Your task to perform on an android device: What's on my calendar today? Image 0: 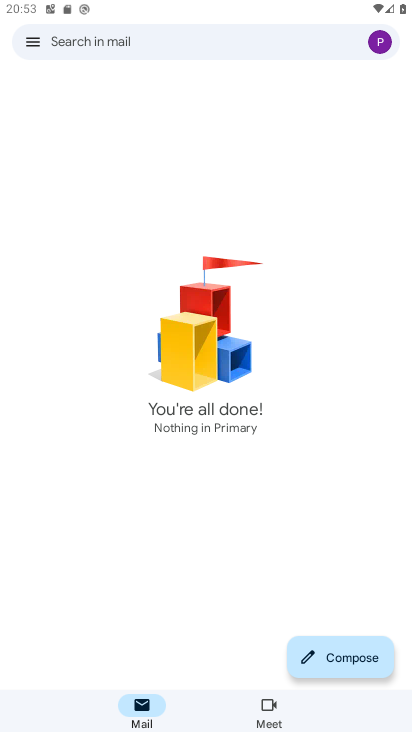
Step 0: click (38, 39)
Your task to perform on an android device: What's on my calendar today? Image 1: 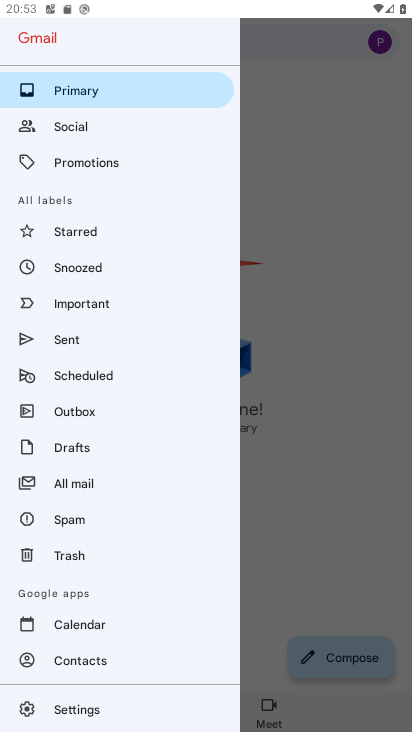
Step 1: drag from (37, 650) to (71, 297)
Your task to perform on an android device: What's on my calendar today? Image 2: 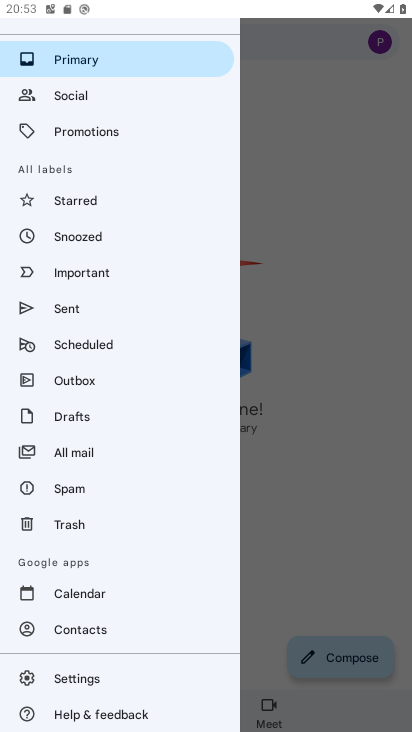
Step 2: click (57, 670)
Your task to perform on an android device: What's on my calendar today? Image 3: 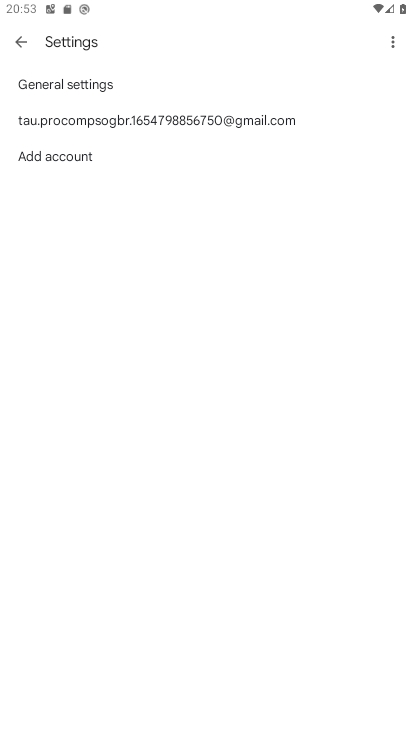
Step 3: press home button
Your task to perform on an android device: What's on my calendar today? Image 4: 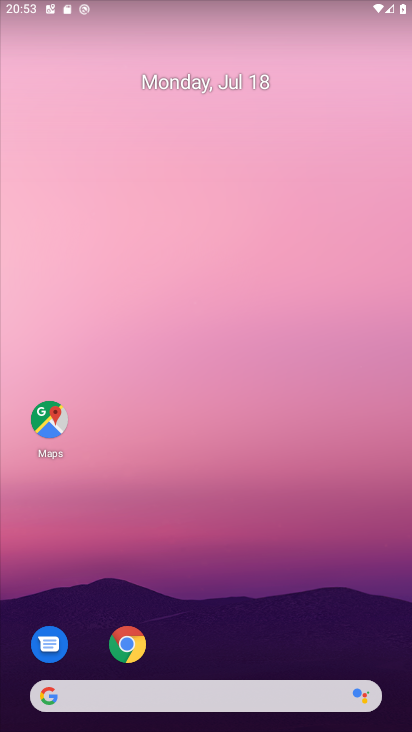
Step 4: drag from (213, 632) to (198, 14)
Your task to perform on an android device: What's on my calendar today? Image 5: 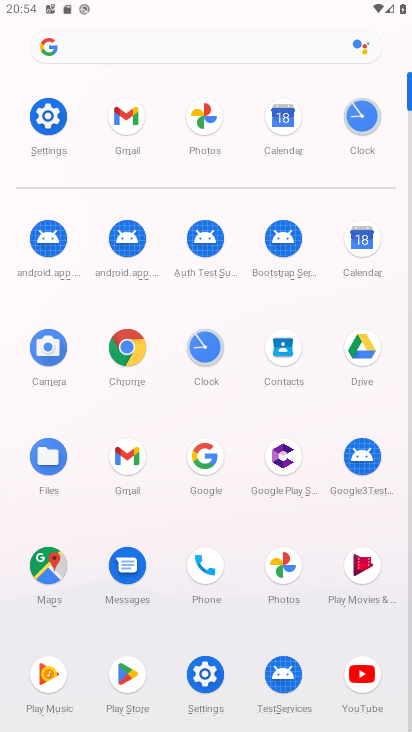
Step 5: click (298, 126)
Your task to perform on an android device: What's on my calendar today? Image 6: 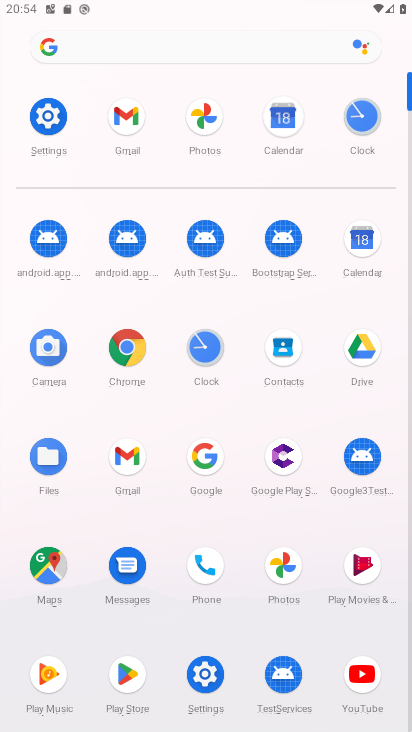
Step 6: task complete